Your task to perform on an android device: turn off sleep mode Image 0: 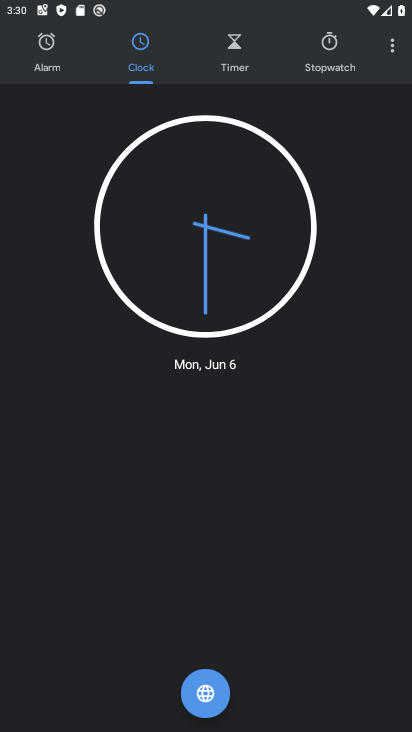
Step 0: press back button
Your task to perform on an android device: turn off sleep mode Image 1: 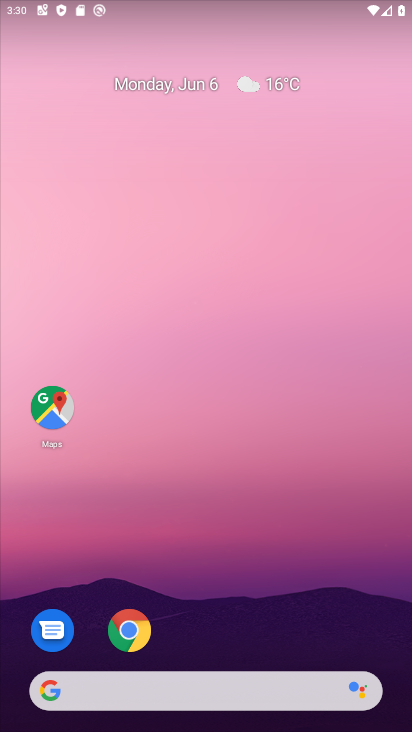
Step 1: drag from (225, 642) to (271, 32)
Your task to perform on an android device: turn off sleep mode Image 2: 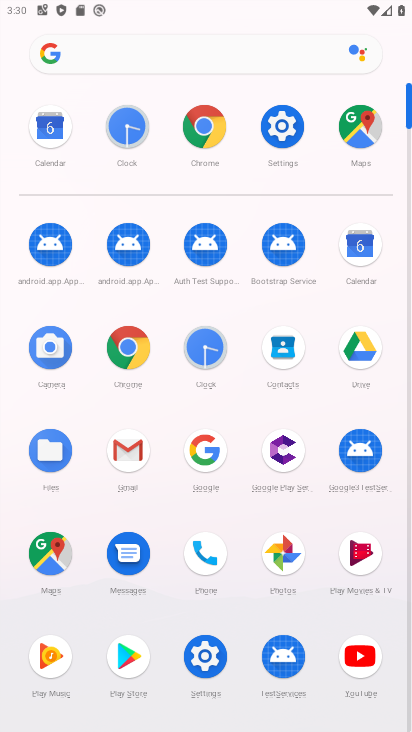
Step 2: click (284, 115)
Your task to perform on an android device: turn off sleep mode Image 3: 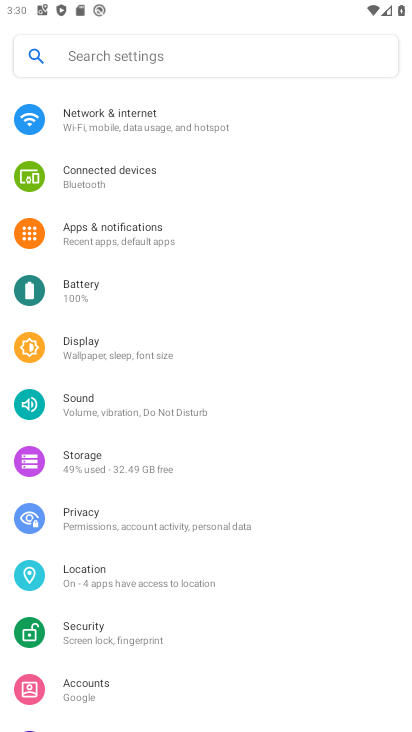
Step 3: click (131, 56)
Your task to perform on an android device: turn off sleep mode Image 4: 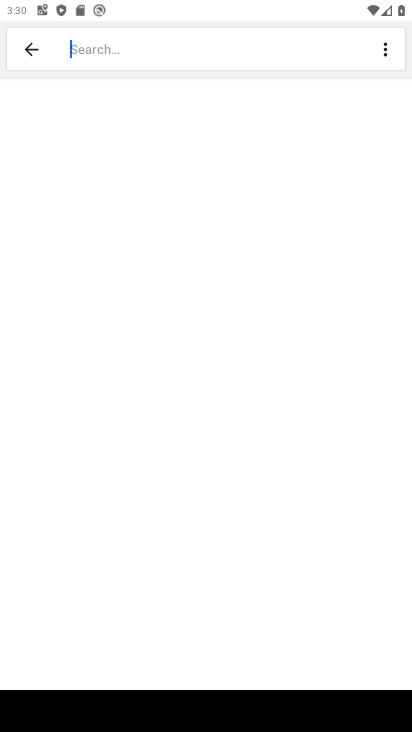
Step 4: type "sleep mode"
Your task to perform on an android device: turn off sleep mode Image 5: 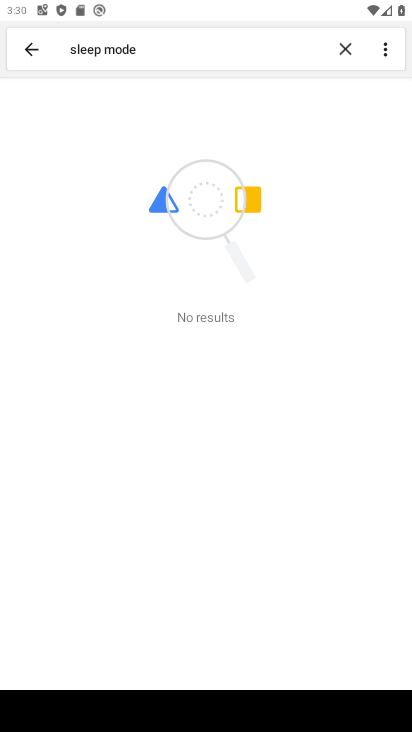
Step 5: task complete